Your task to perform on an android device: move a message to another label in the gmail app Image 0: 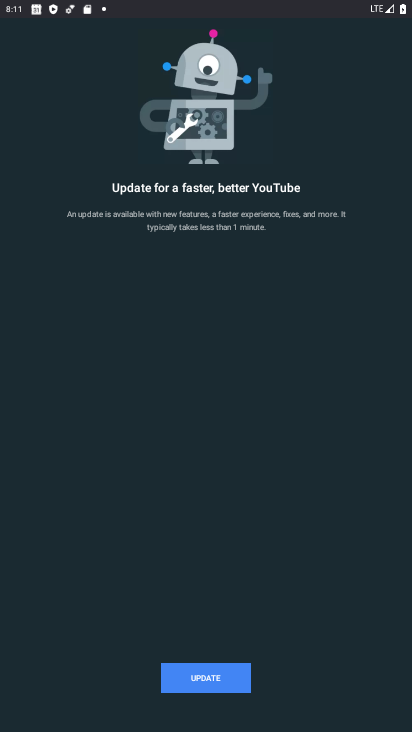
Step 0: press home button
Your task to perform on an android device: move a message to another label in the gmail app Image 1: 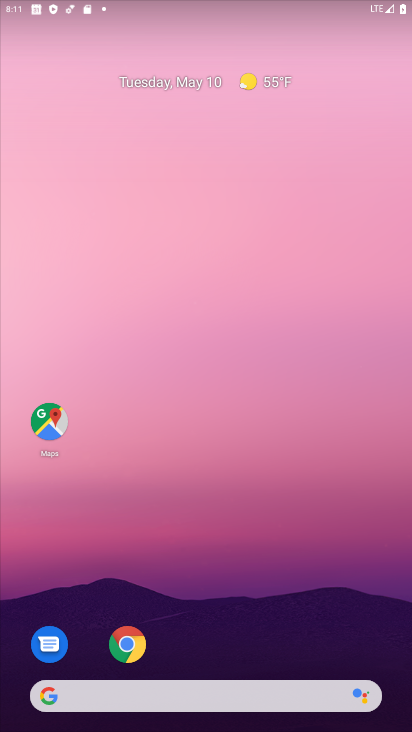
Step 1: drag from (225, 536) to (322, 65)
Your task to perform on an android device: move a message to another label in the gmail app Image 2: 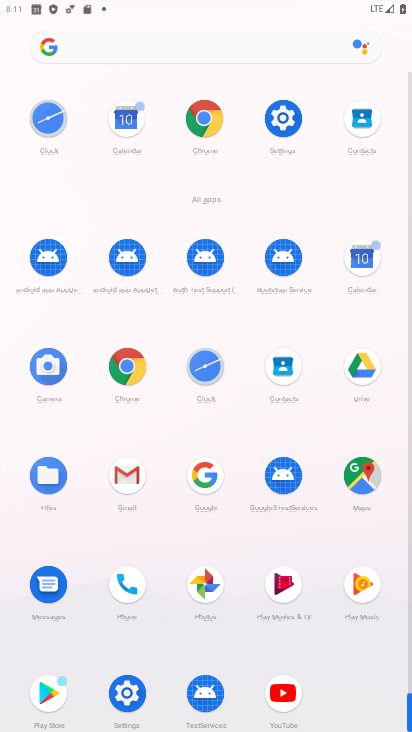
Step 2: click (126, 495)
Your task to perform on an android device: move a message to another label in the gmail app Image 3: 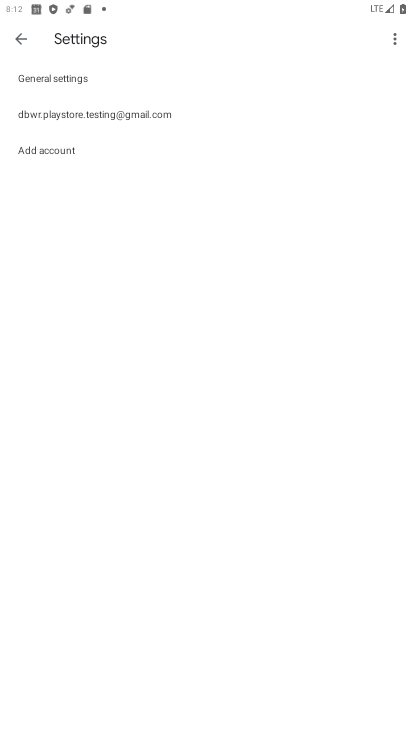
Step 3: click (19, 38)
Your task to perform on an android device: move a message to another label in the gmail app Image 4: 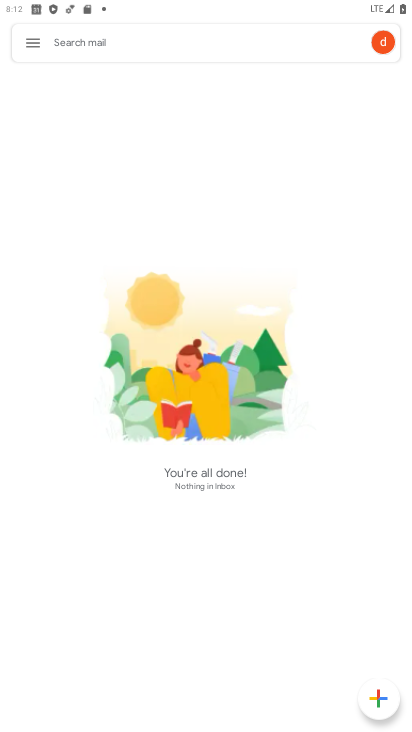
Step 4: click (27, 36)
Your task to perform on an android device: move a message to another label in the gmail app Image 5: 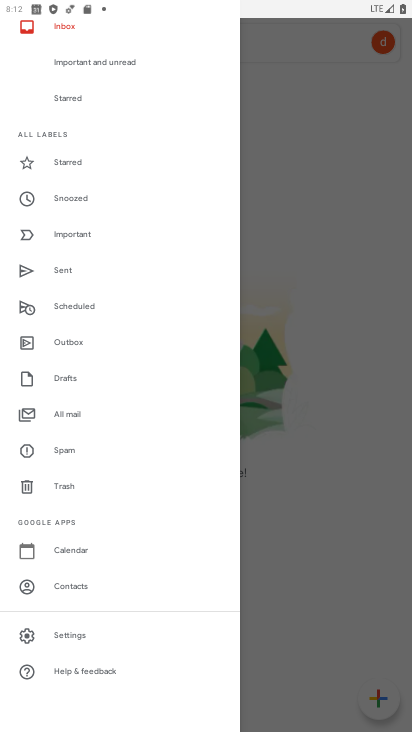
Step 5: click (63, 422)
Your task to perform on an android device: move a message to another label in the gmail app Image 6: 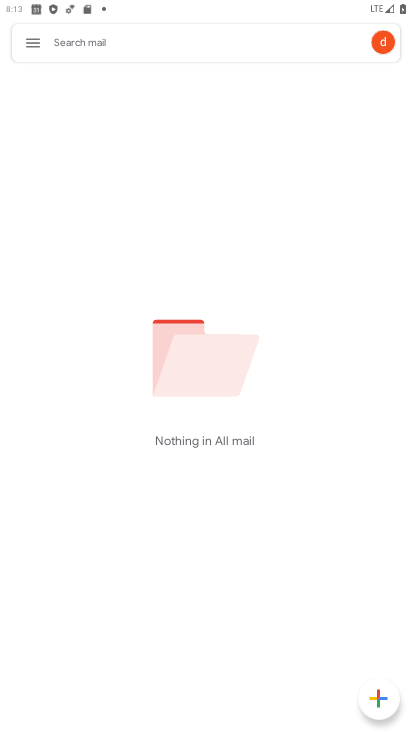
Step 6: task complete